Your task to perform on an android device: Open calendar and show me the third week of next month Image 0: 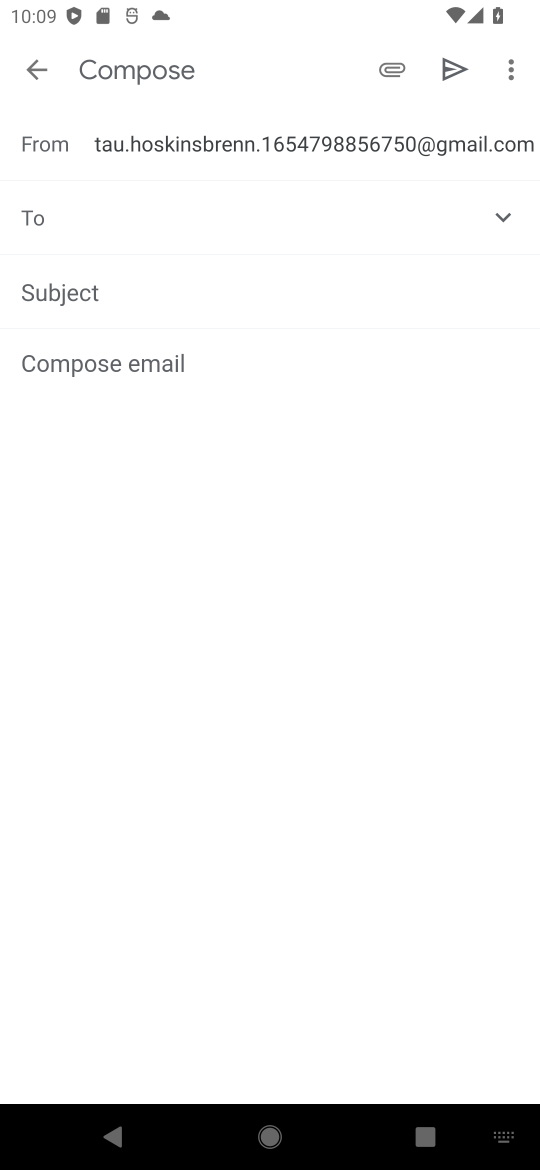
Step 0: press home button
Your task to perform on an android device: Open calendar and show me the third week of next month Image 1: 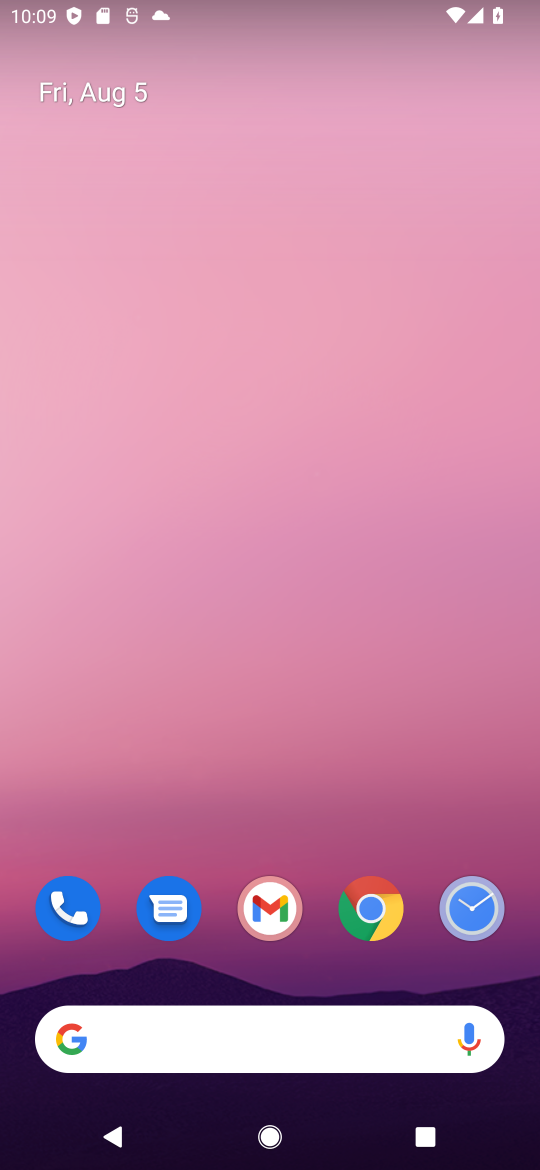
Step 1: task complete